Your task to perform on an android device: turn off location history Image 0: 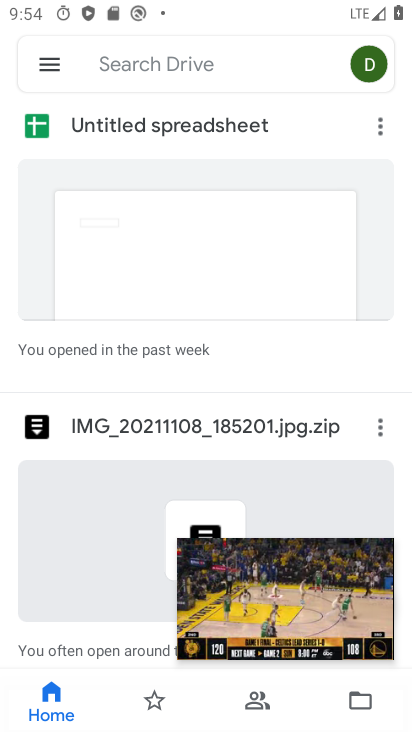
Step 0: press home button
Your task to perform on an android device: turn off location history Image 1: 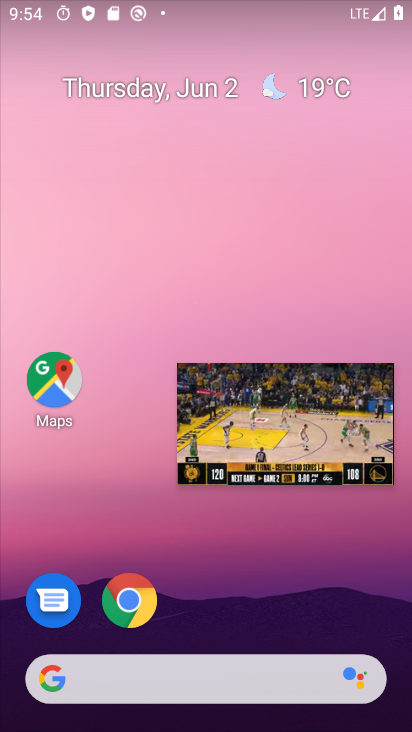
Step 1: click (328, 393)
Your task to perform on an android device: turn off location history Image 2: 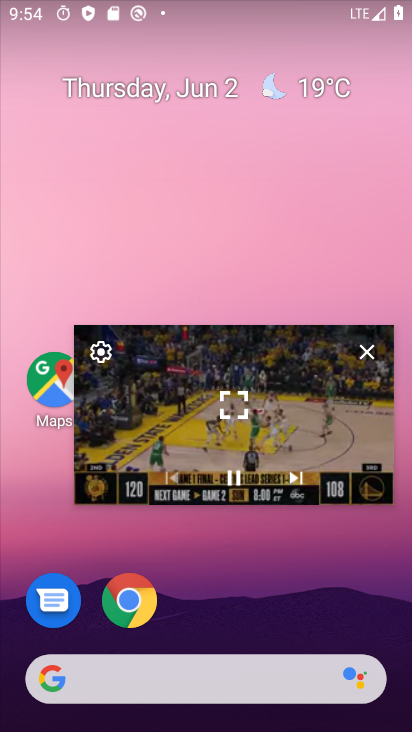
Step 2: click (369, 356)
Your task to perform on an android device: turn off location history Image 3: 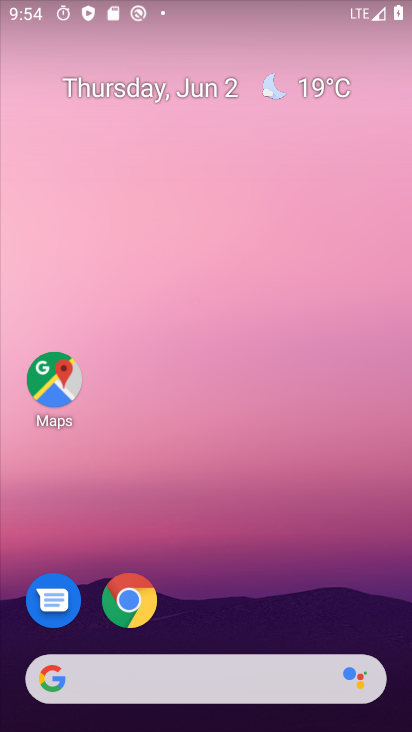
Step 3: drag from (230, 613) to (291, 123)
Your task to perform on an android device: turn off location history Image 4: 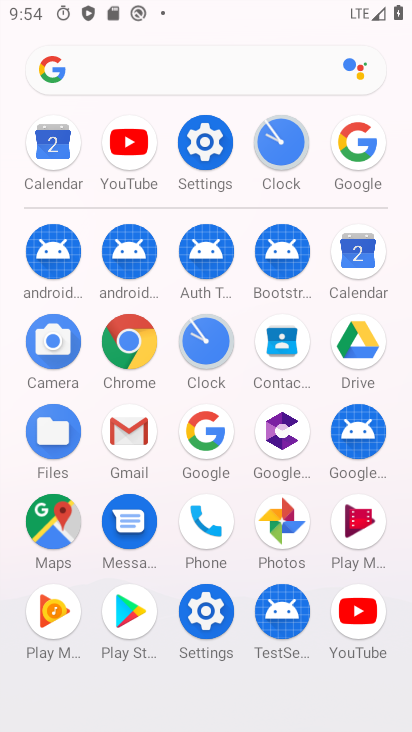
Step 4: click (215, 139)
Your task to perform on an android device: turn off location history Image 5: 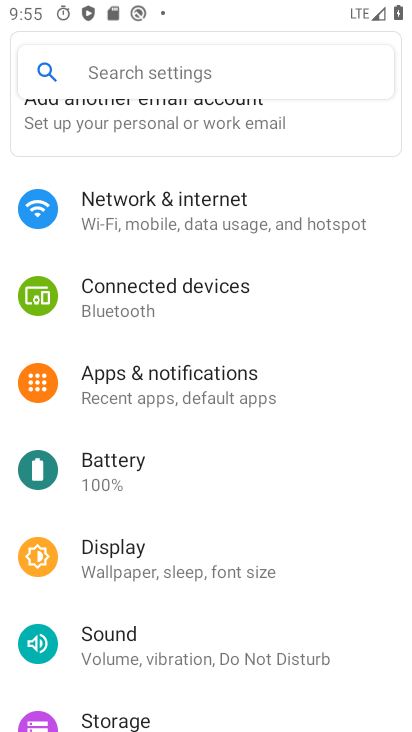
Step 5: drag from (194, 670) to (232, 363)
Your task to perform on an android device: turn off location history Image 6: 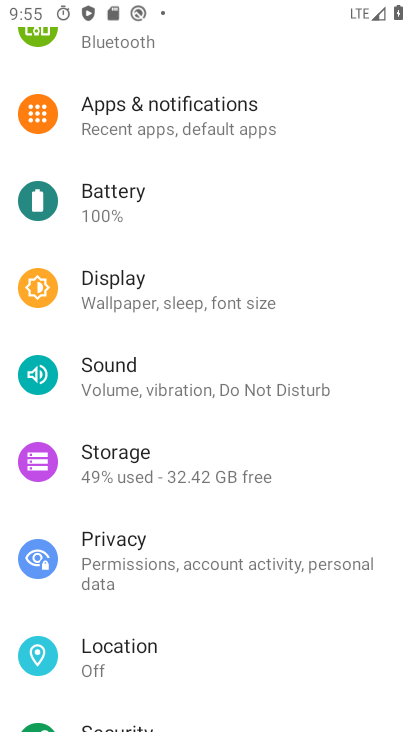
Step 6: click (176, 643)
Your task to perform on an android device: turn off location history Image 7: 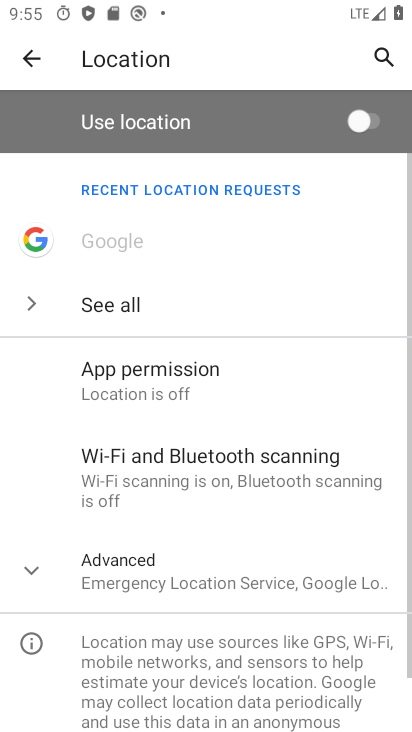
Step 7: click (205, 571)
Your task to perform on an android device: turn off location history Image 8: 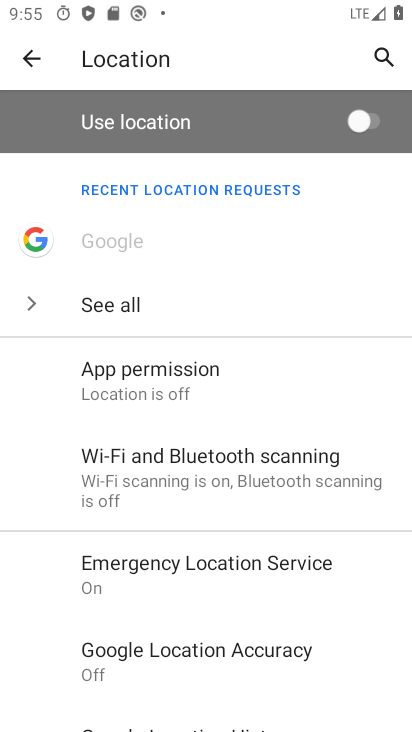
Step 8: drag from (219, 633) to (257, 415)
Your task to perform on an android device: turn off location history Image 9: 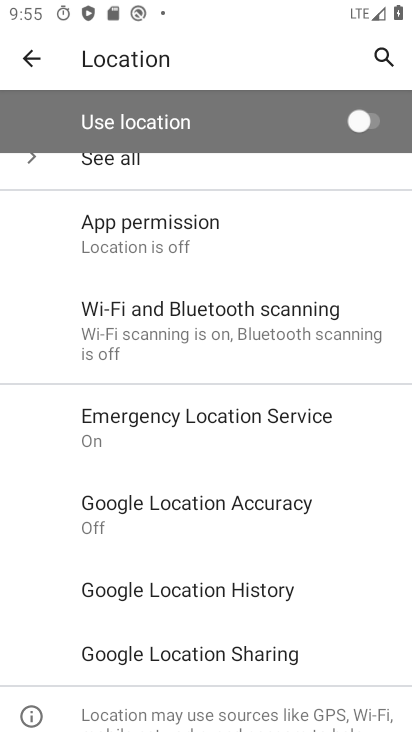
Step 9: click (228, 581)
Your task to perform on an android device: turn off location history Image 10: 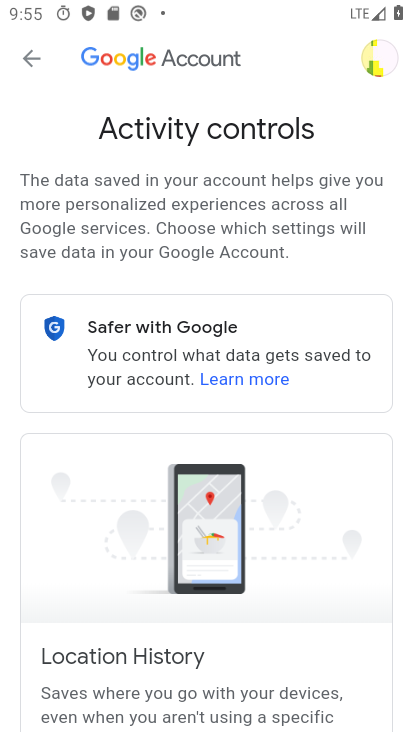
Step 10: drag from (193, 651) to (241, 366)
Your task to perform on an android device: turn off location history Image 11: 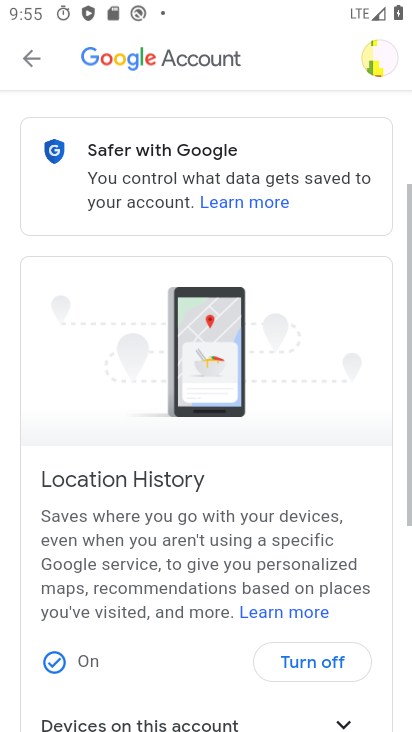
Step 11: drag from (192, 556) to (221, 364)
Your task to perform on an android device: turn off location history Image 12: 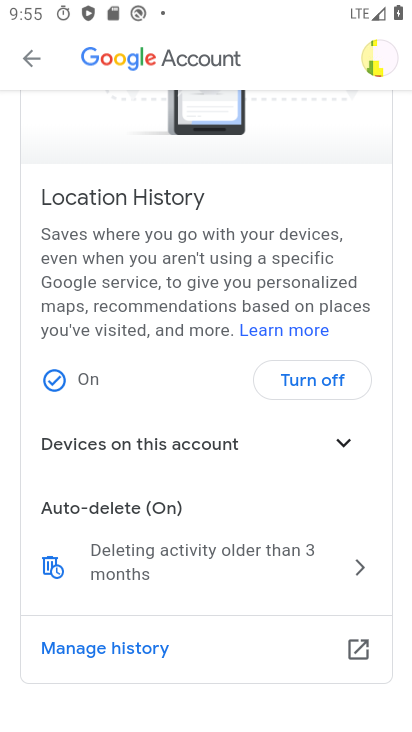
Step 12: click (324, 372)
Your task to perform on an android device: turn off location history Image 13: 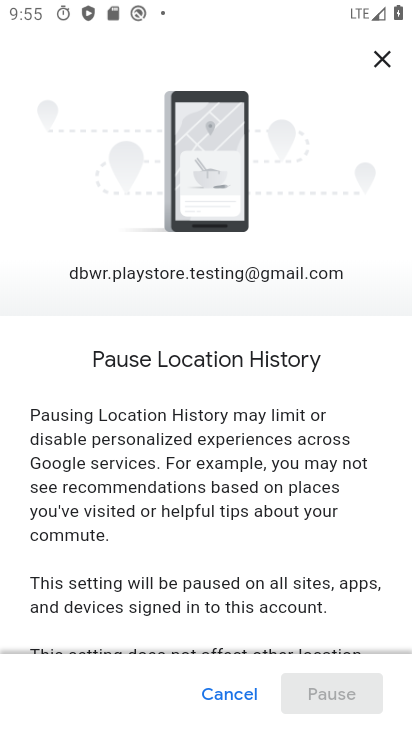
Step 13: drag from (232, 504) to (294, 218)
Your task to perform on an android device: turn off location history Image 14: 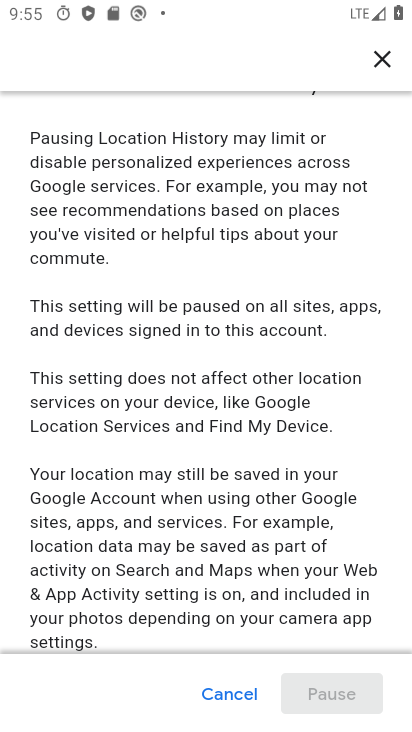
Step 14: drag from (271, 453) to (312, 209)
Your task to perform on an android device: turn off location history Image 15: 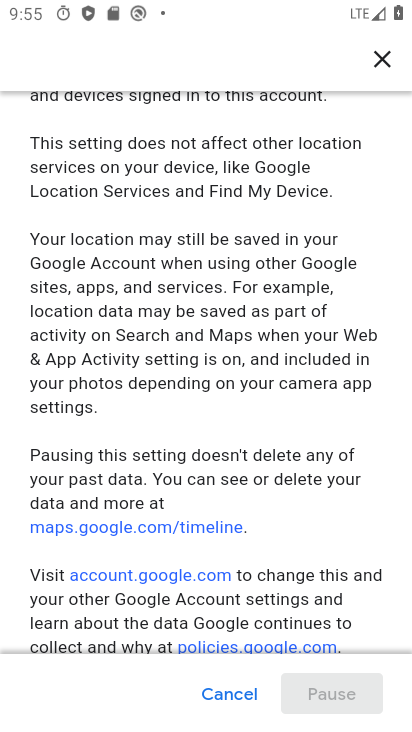
Step 15: drag from (312, 537) to (349, 262)
Your task to perform on an android device: turn off location history Image 16: 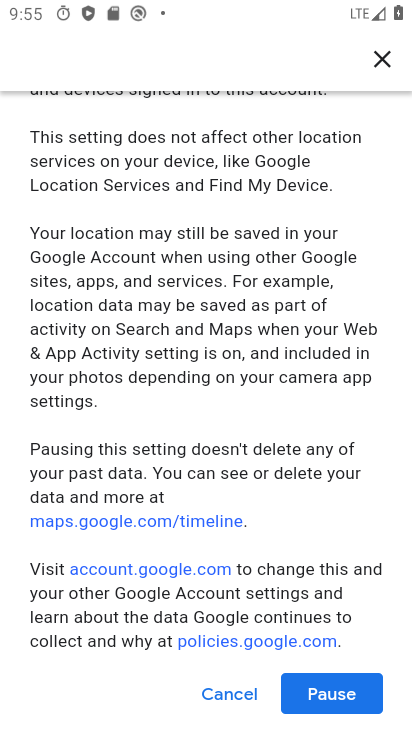
Step 16: click (308, 687)
Your task to perform on an android device: turn off location history Image 17: 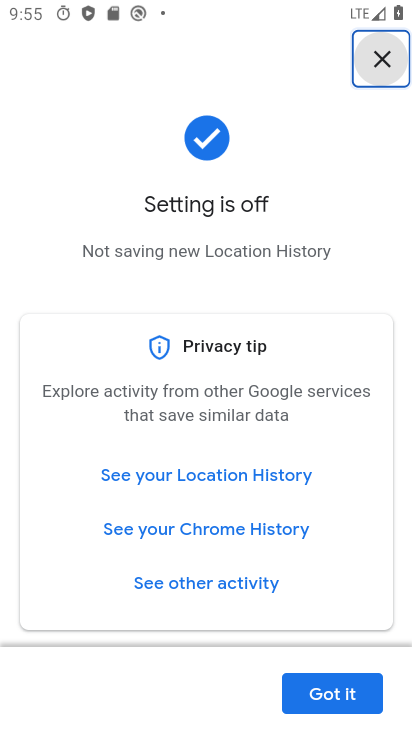
Step 17: task complete